Your task to perform on an android device: Check the weather Image 0: 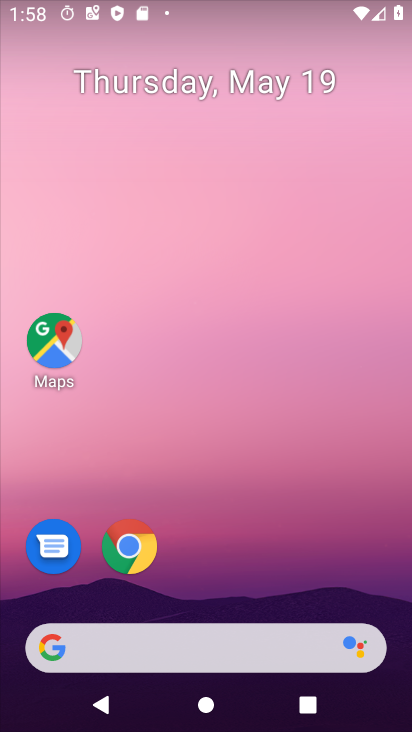
Step 0: click (186, 641)
Your task to perform on an android device: Check the weather Image 1: 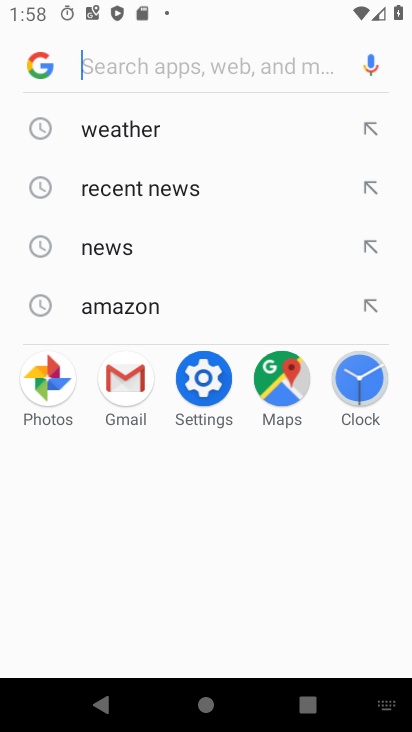
Step 1: click (194, 132)
Your task to perform on an android device: Check the weather Image 2: 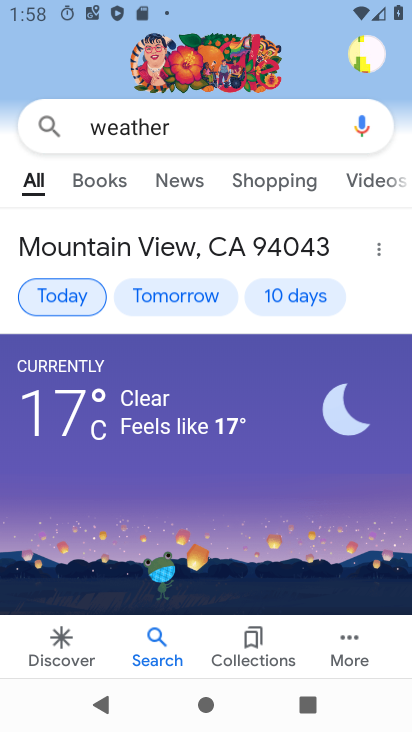
Step 2: task complete